Your task to perform on an android device: Open the Play Movies app and select the watchlist tab. Image 0: 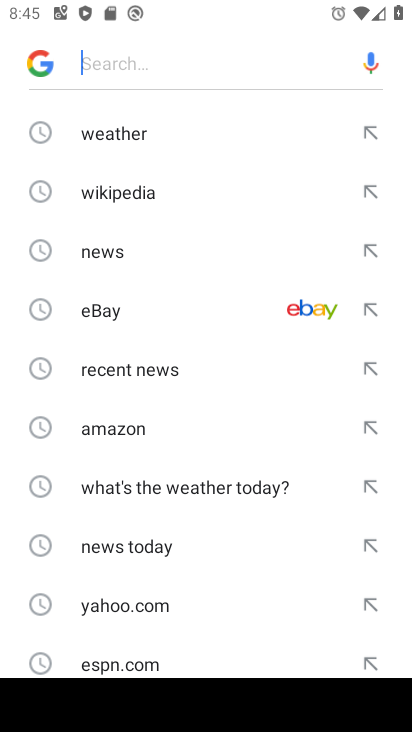
Step 0: press home button
Your task to perform on an android device: Open the Play Movies app and select the watchlist tab. Image 1: 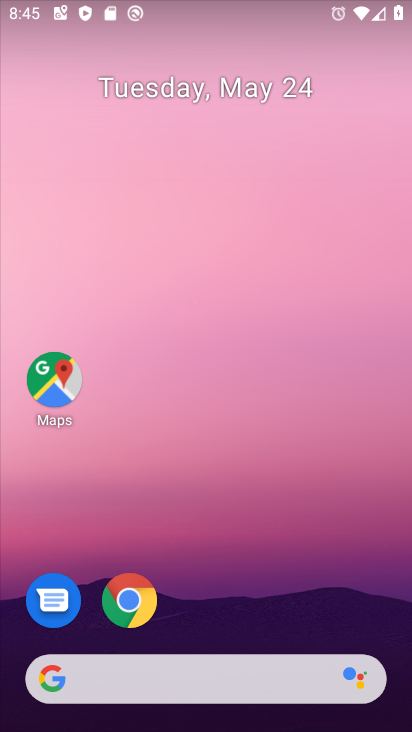
Step 1: drag from (193, 722) to (193, 576)
Your task to perform on an android device: Open the Play Movies app and select the watchlist tab. Image 2: 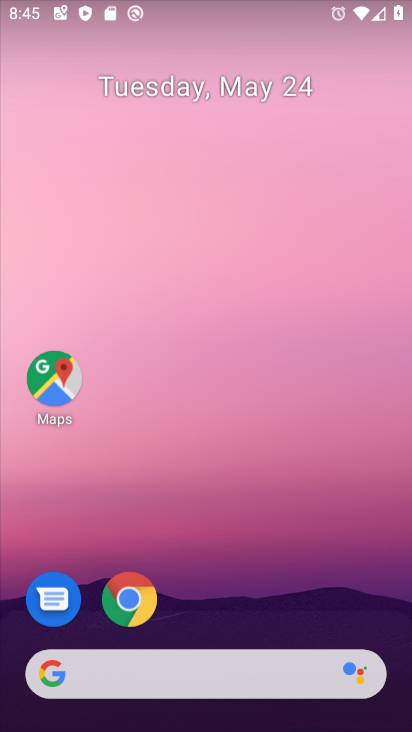
Step 2: click (177, 143)
Your task to perform on an android device: Open the Play Movies app and select the watchlist tab. Image 3: 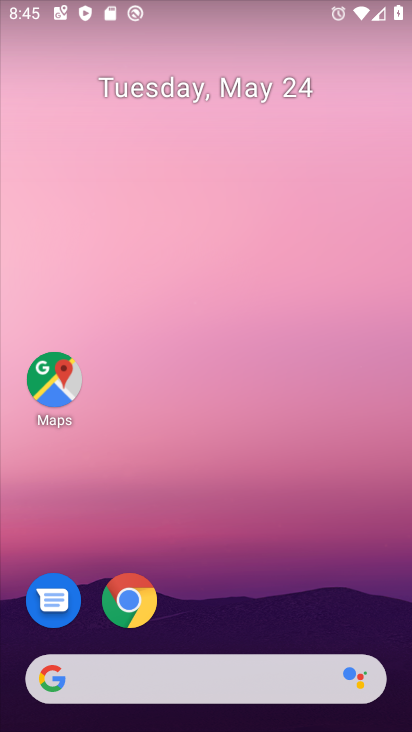
Step 3: drag from (247, 715) to (212, 0)
Your task to perform on an android device: Open the Play Movies app and select the watchlist tab. Image 4: 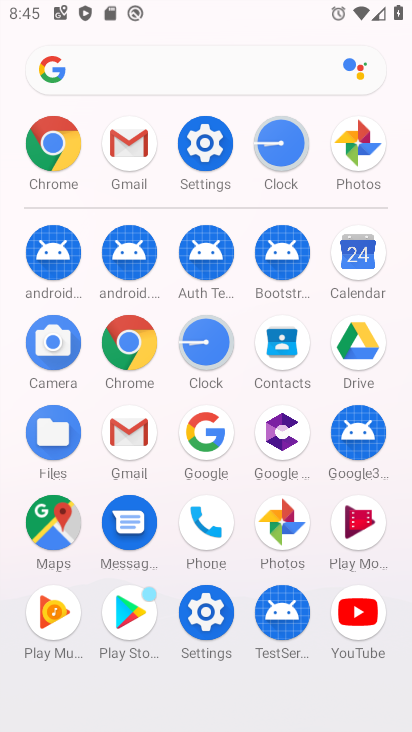
Step 4: click (362, 518)
Your task to perform on an android device: Open the Play Movies app and select the watchlist tab. Image 5: 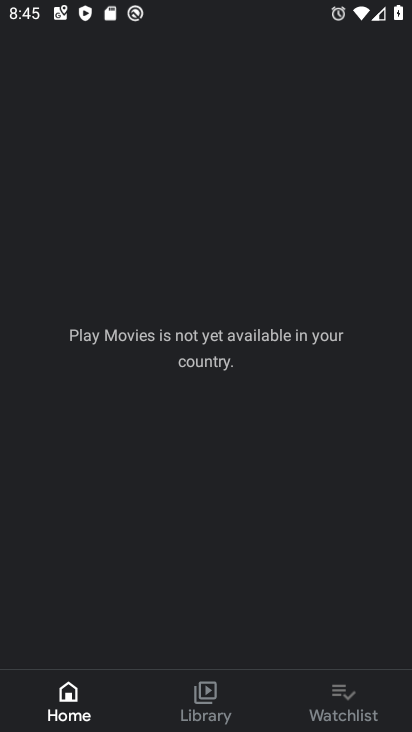
Step 5: click (342, 711)
Your task to perform on an android device: Open the Play Movies app and select the watchlist tab. Image 6: 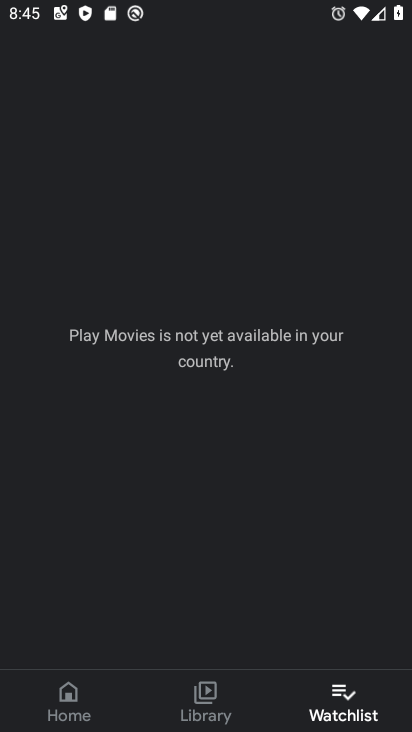
Step 6: task complete